Your task to perform on an android device: turn vacation reply on in the gmail app Image 0: 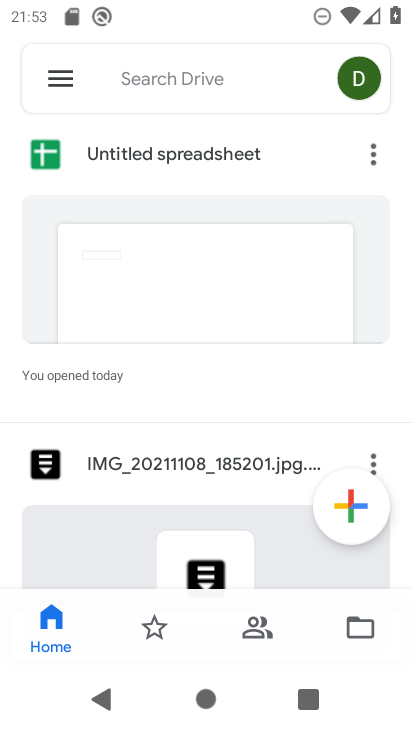
Step 0: press home button
Your task to perform on an android device: turn vacation reply on in the gmail app Image 1: 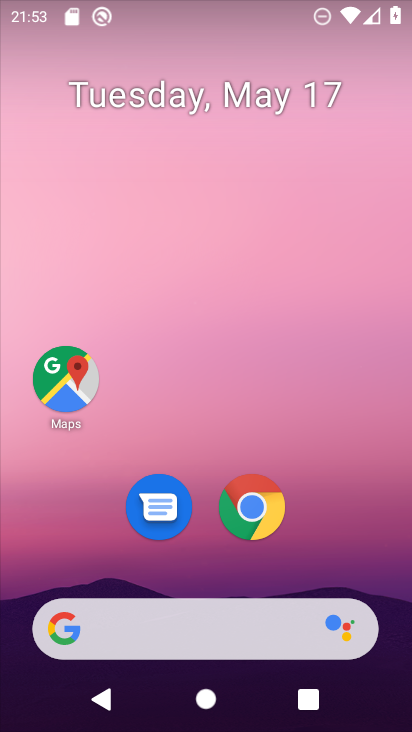
Step 1: drag from (359, 579) to (343, 14)
Your task to perform on an android device: turn vacation reply on in the gmail app Image 2: 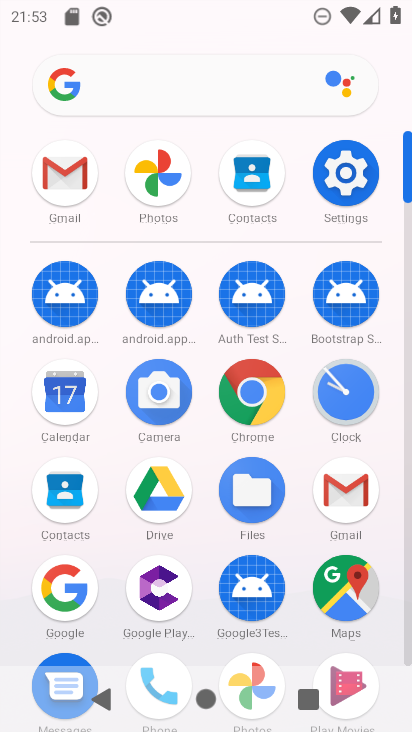
Step 2: click (53, 182)
Your task to perform on an android device: turn vacation reply on in the gmail app Image 3: 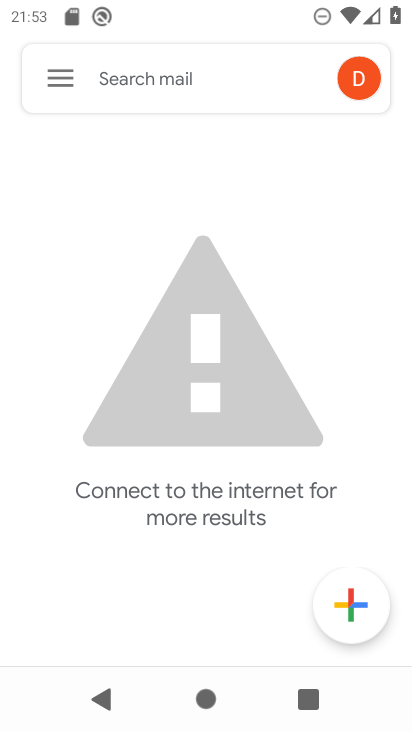
Step 3: click (60, 77)
Your task to perform on an android device: turn vacation reply on in the gmail app Image 4: 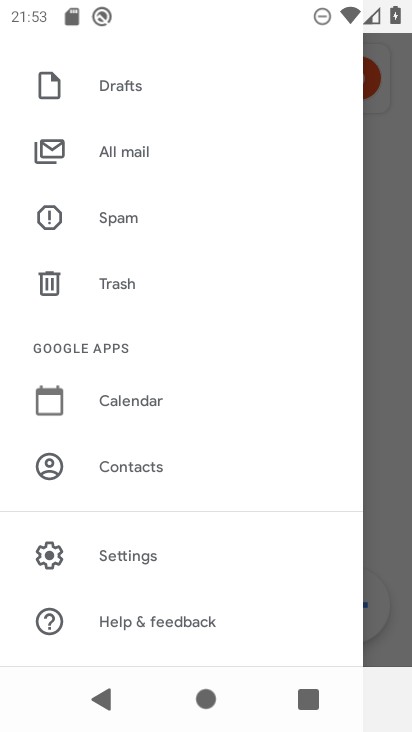
Step 4: click (159, 551)
Your task to perform on an android device: turn vacation reply on in the gmail app Image 5: 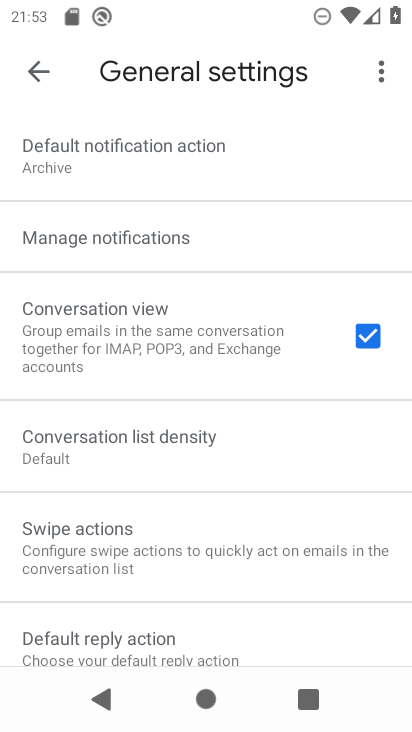
Step 5: drag from (197, 580) to (195, 545)
Your task to perform on an android device: turn vacation reply on in the gmail app Image 6: 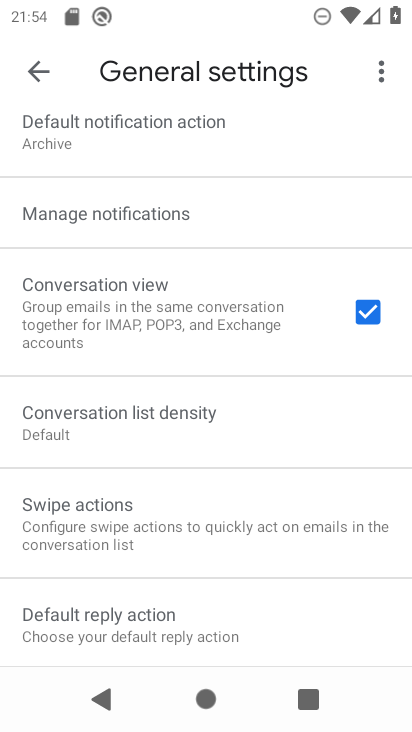
Step 6: click (38, 71)
Your task to perform on an android device: turn vacation reply on in the gmail app Image 7: 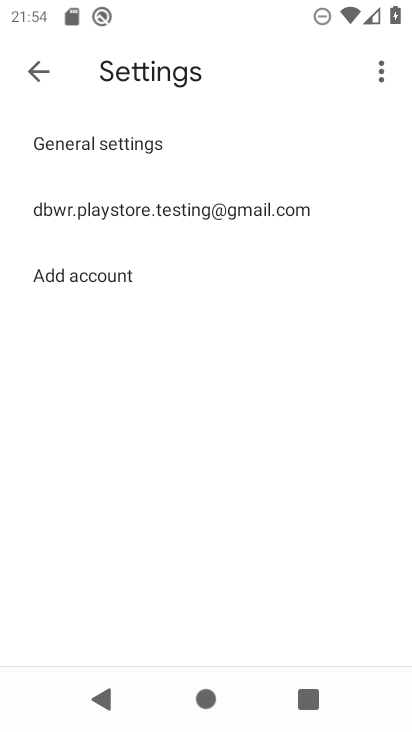
Step 7: click (91, 208)
Your task to perform on an android device: turn vacation reply on in the gmail app Image 8: 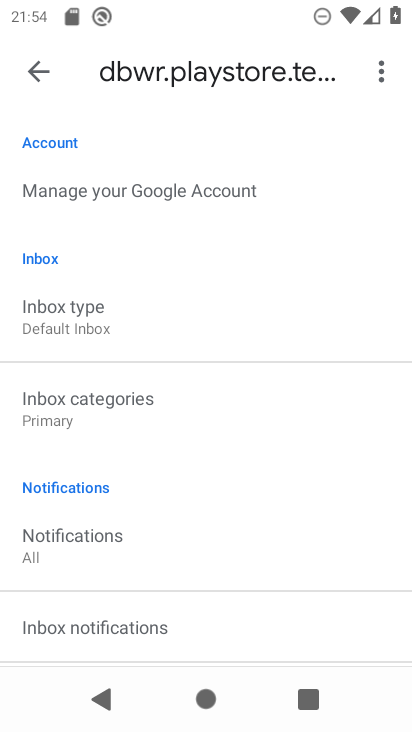
Step 8: drag from (185, 490) to (145, 81)
Your task to perform on an android device: turn vacation reply on in the gmail app Image 9: 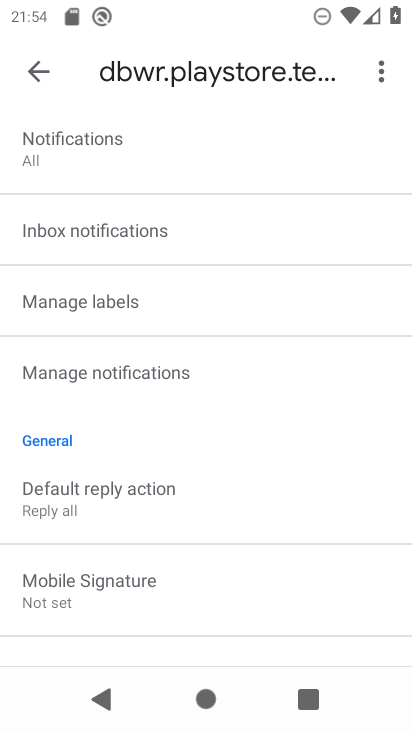
Step 9: drag from (176, 570) to (147, 268)
Your task to perform on an android device: turn vacation reply on in the gmail app Image 10: 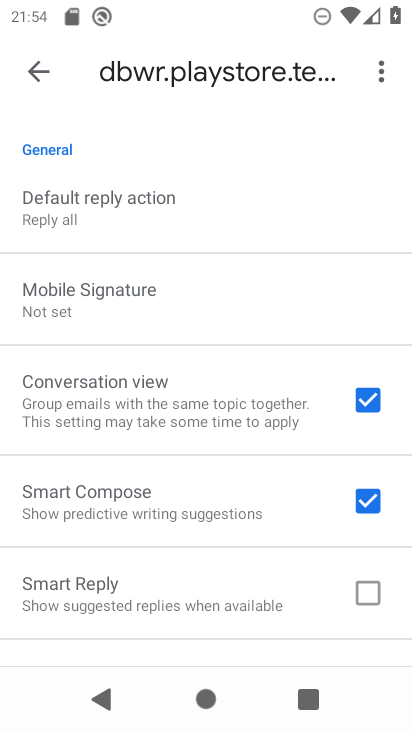
Step 10: drag from (131, 566) to (111, 207)
Your task to perform on an android device: turn vacation reply on in the gmail app Image 11: 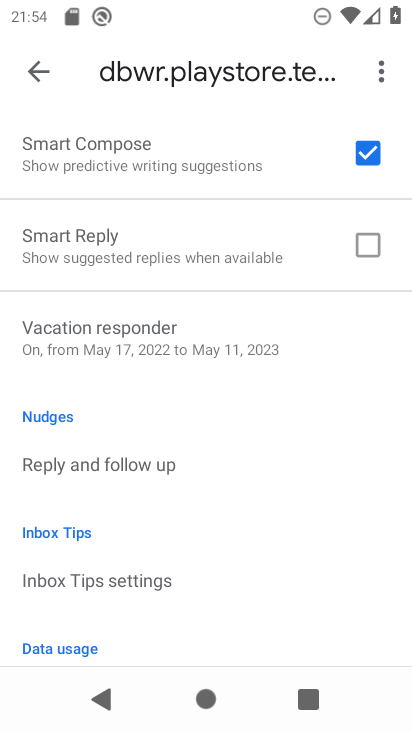
Step 11: click (106, 334)
Your task to perform on an android device: turn vacation reply on in the gmail app Image 12: 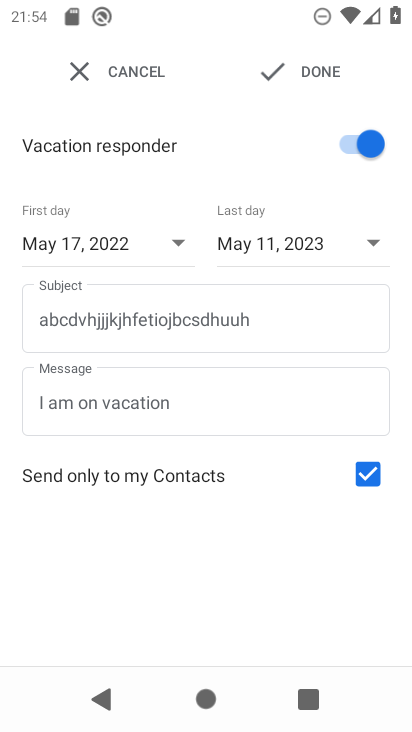
Step 12: click (326, 74)
Your task to perform on an android device: turn vacation reply on in the gmail app Image 13: 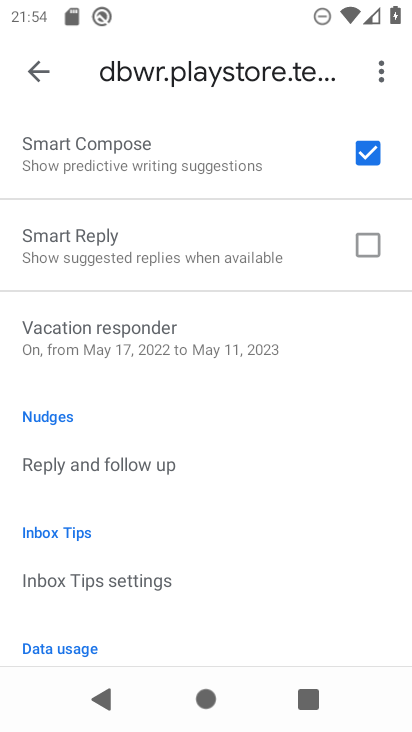
Step 13: task complete